Your task to perform on an android device: turn on improve location accuracy Image 0: 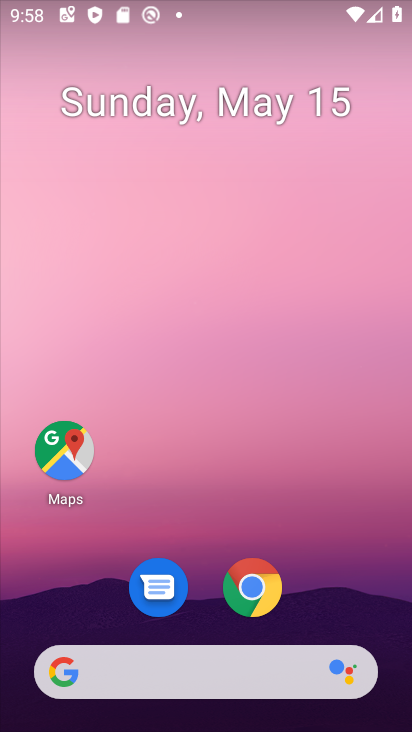
Step 0: drag from (382, 619) to (288, 80)
Your task to perform on an android device: turn on improve location accuracy Image 1: 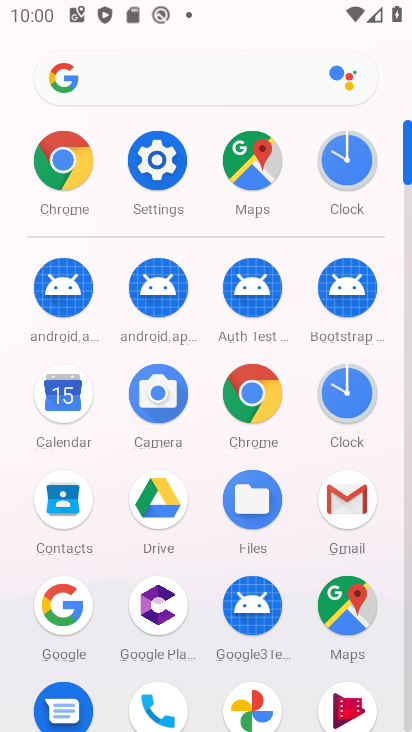
Step 1: click (164, 173)
Your task to perform on an android device: turn on improve location accuracy Image 2: 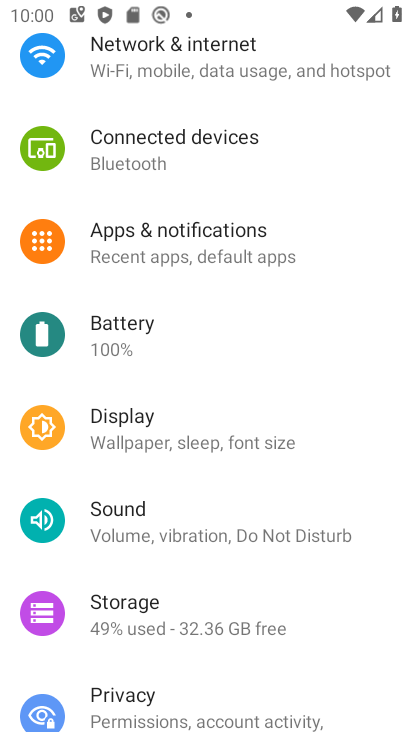
Step 2: drag from (127, 654) to (197, 383)
Your task to perform on an android device: turn on improve location accuracy Image 3: 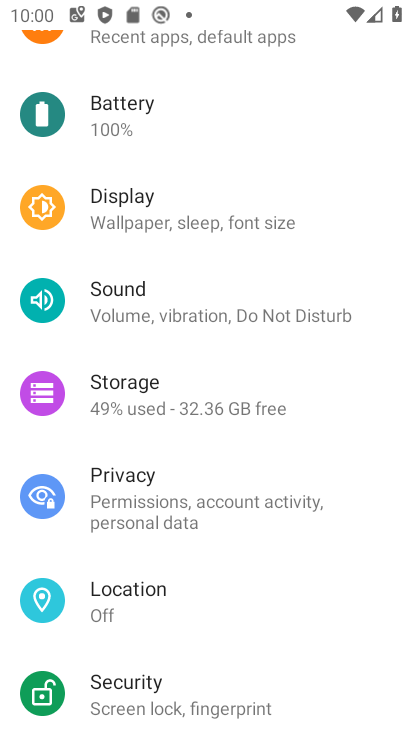
Step 3: click (160, 603)
Your task to perform on an android device: turn on improve location accuracy Image 4: 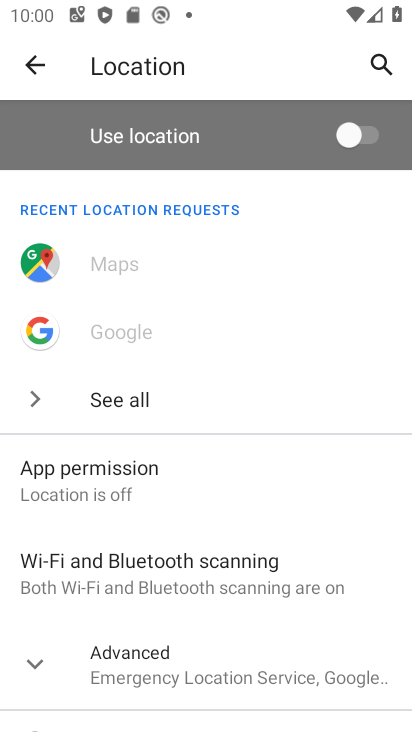
Step 4: drag from (160, 599) to (194, 400)
Your task to perform on an android device: turn on improve location accuracy Image 5: 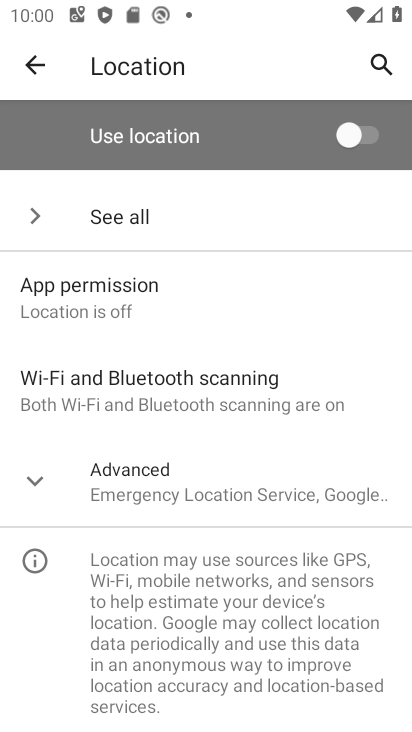
Step 5: click (87, 486)
Your task to perform on an android device: turn on improve location accuracy Image 6: 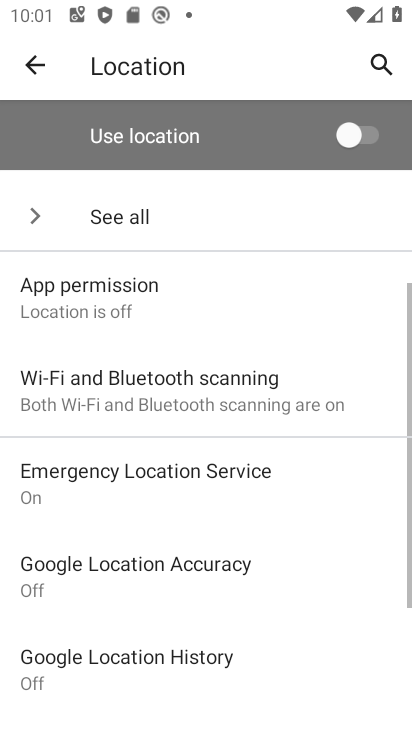
Step 6: click (189, 575)
Your task to perform on an android device: turn on improve location accuracy Image 7: 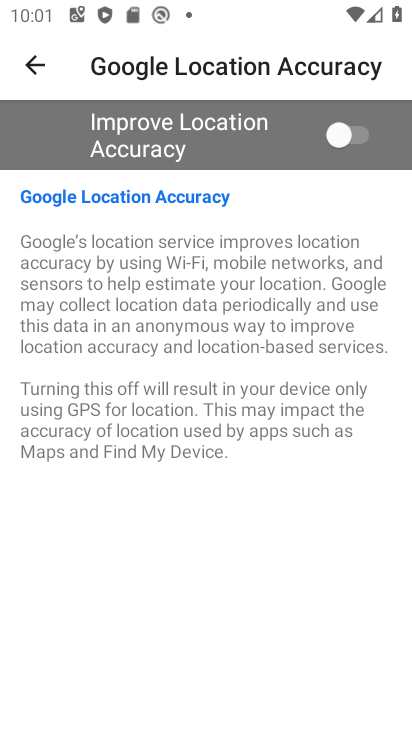
Step 7: click (335, 144)
Your task to perform on an android device: turn on improve location accuracy Image 8: 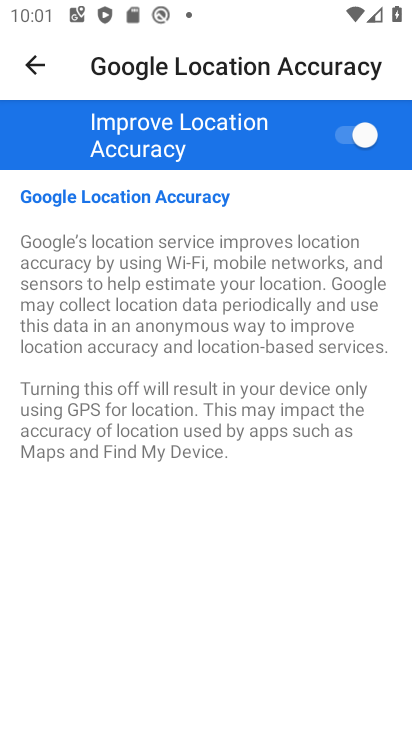
Step 8: task complete